Your task to perform on an android device: Turn on the flashlight Image 0: 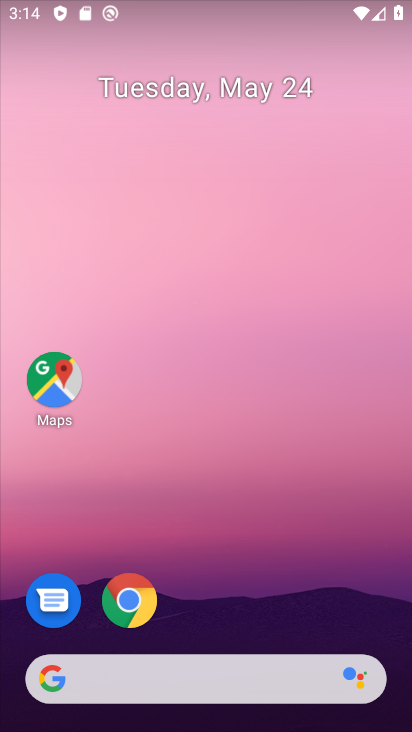
Step 0: drag from (192, 12) to (194, 548)
Your task to perform on an android device: Turn on the flashlight Image 1: 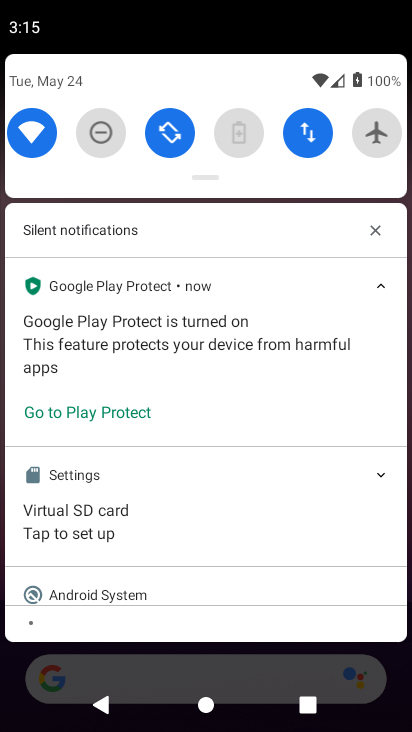
Step 1: task complete